Your task to perform on an android device: turn off translation in the chrome app Image 0: 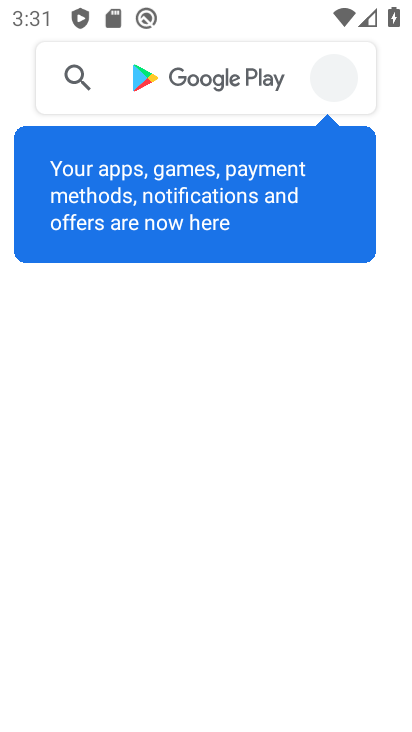
Step 0: press home button
Your task to perform on an android device: turn off translation in the chrome app Image 1: 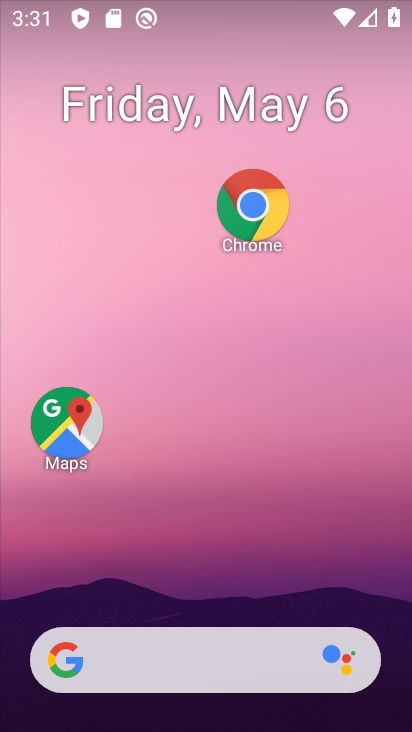
Step 1: drag from (197, 630) to (125, 85)
Your task to perform on an android device: turn off translation in the chrome app Image 2: 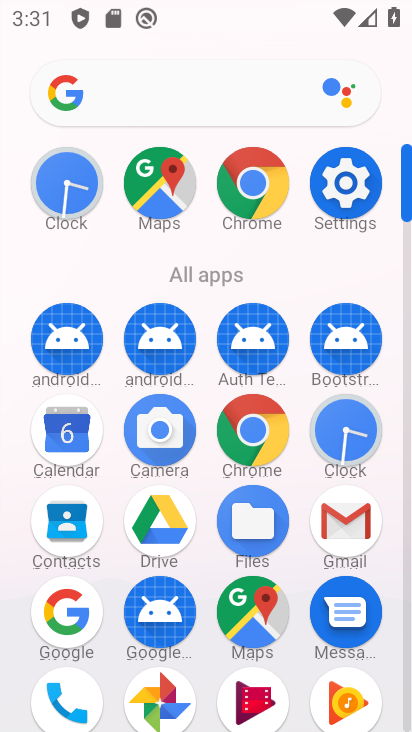
Step 2: click (246, 426)
Your task to perform on an android device: turn off translation in the chrome app Image 3: 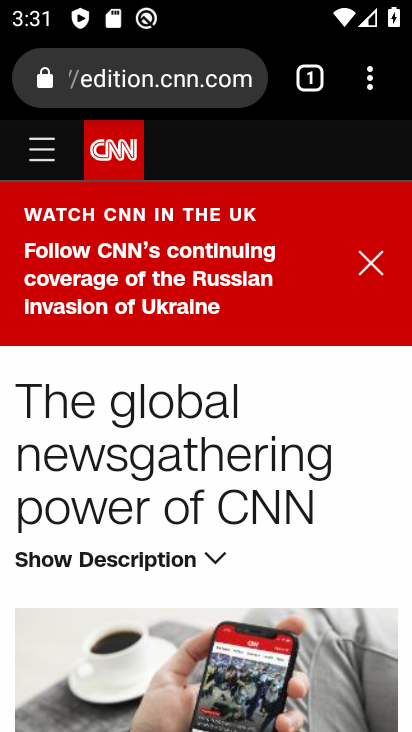
Step 3: click (374, 91)
Your task to perform on an android device: turn off translation in the chrome app Image 4: 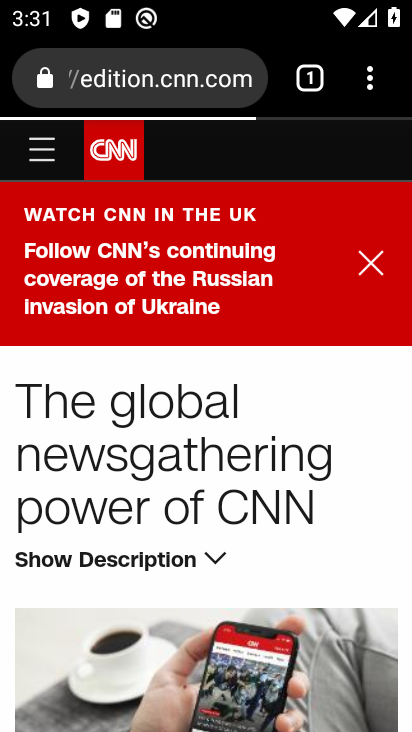
Step 4: drag from (366, 81) to (94, 618)
Your task to perform on an android device: turn off translation in the chrome app Image 5: 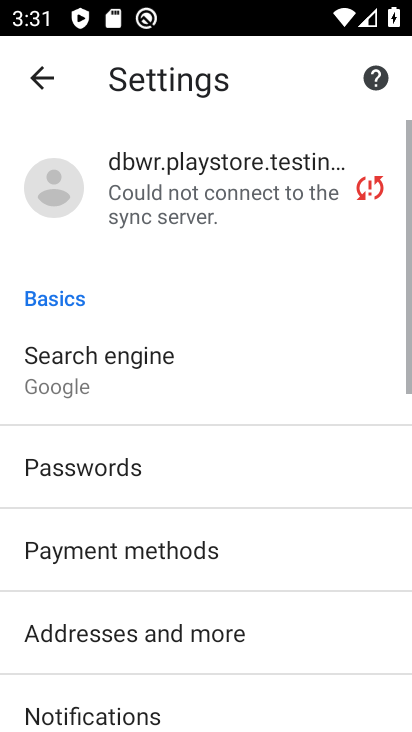
Step 5: drag from (130, 620) to (112, 140)
Your task to perform on an android device: turn off translation in the chrome app Image 6: 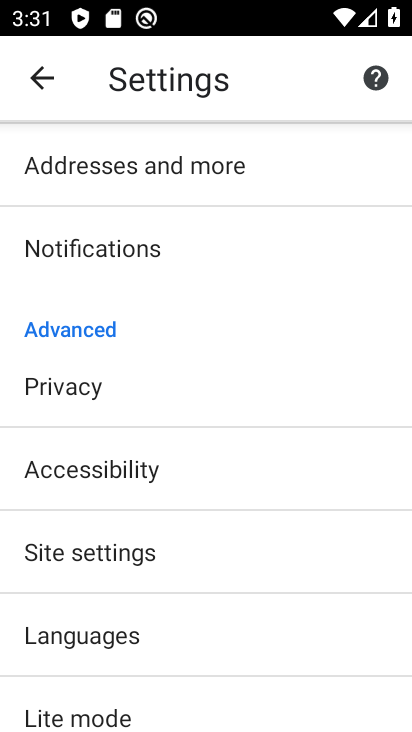
Step 6: click (87, 618)
Your task to perform on an android device: turn off translation in the chrome app Image 7: 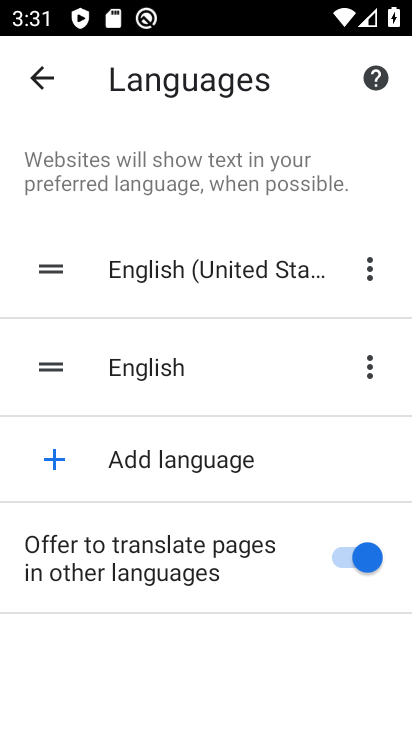
Step 7: click (343, 562)
Your task to perform on an android device: turn off translation in the chrome app Image 8: 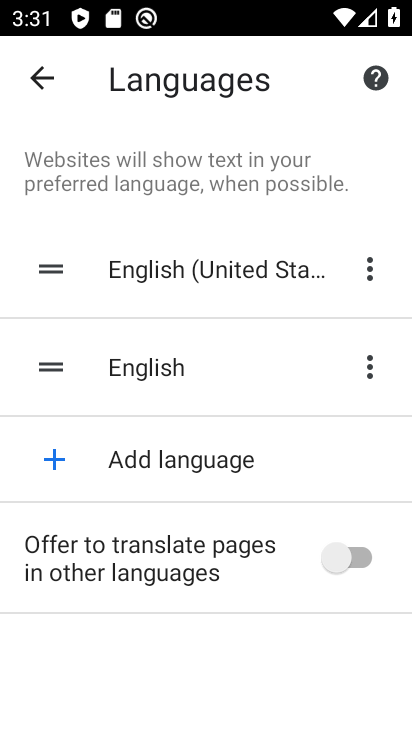
Step 8: task complete